Your task to perform on an android device: turn notification dots on Image 0: 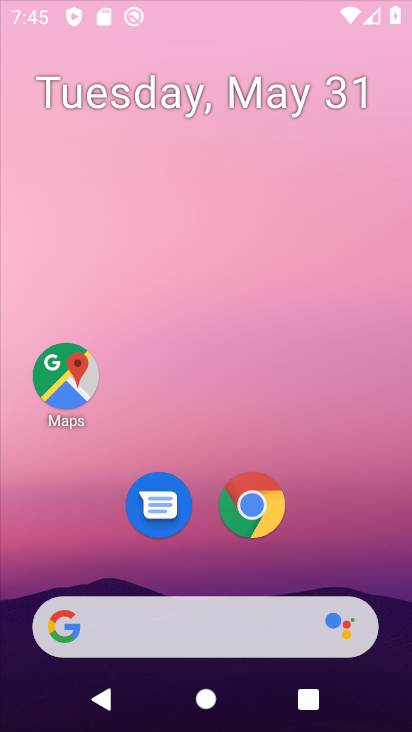
Step 0: drag from (358, 521) to (263, 178)
Your task to perform on an android device: turn notification dots on Image 1: 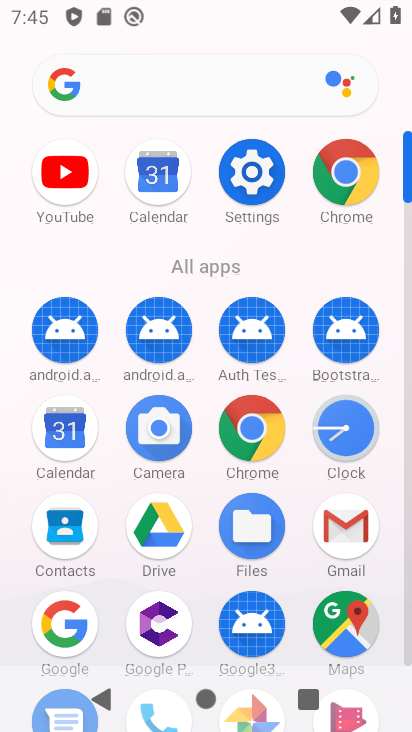
Step 1: click (253, 182)
Your task to perform on an android device: turn notification dots on Image 2: 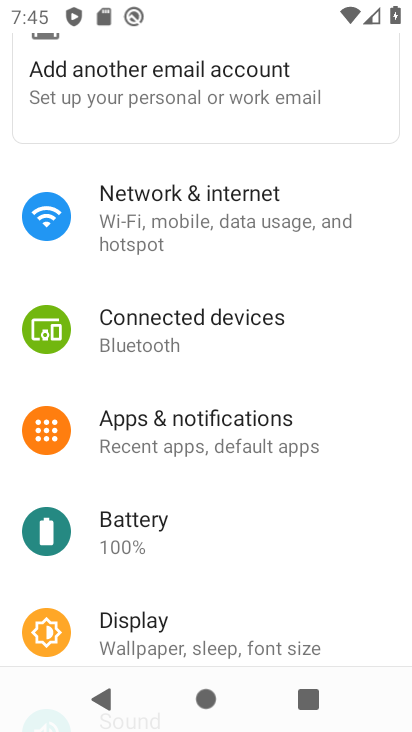
Step 2: click (281, 435)
Your task to perform on an android device: turn notification dots on Image 3: 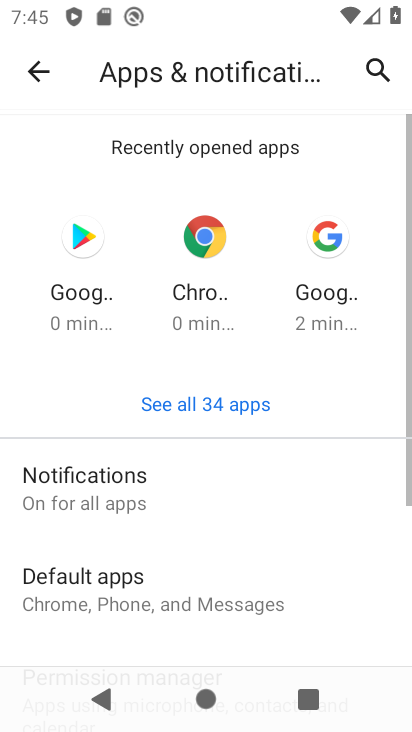
Step 3: click (87, 467)
Your task to perform on an android device: turn notification dots on Image 4: 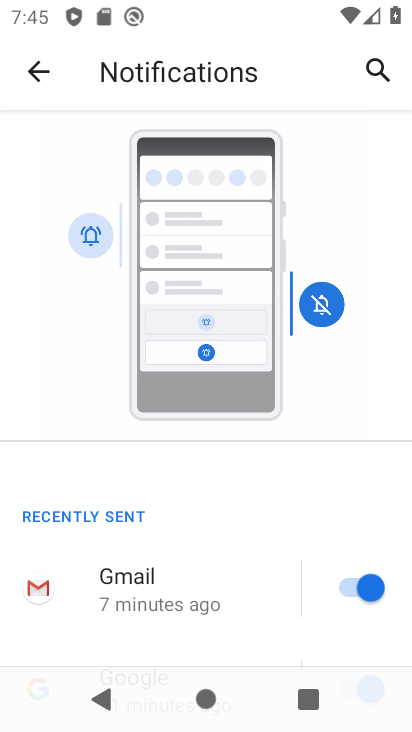
Step 4: drag from (254, 524) to (264, 262)
Your task to perform on an android device: turn notification dots on Image 5: 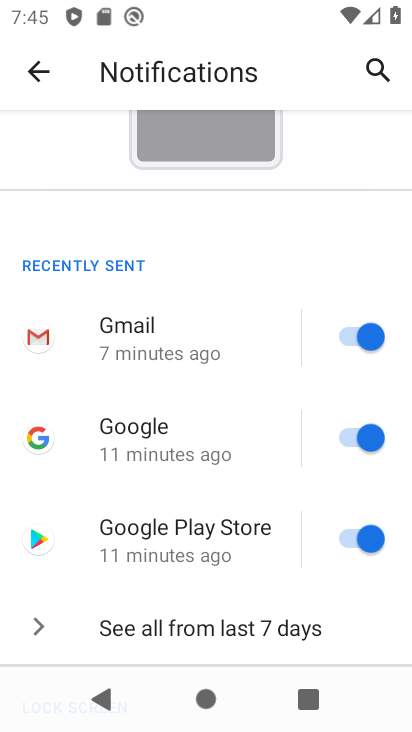
Step 5: drag from (194, 438) to (227, 315)
Your task to perform on an android device: turn notification dots on Image 6: 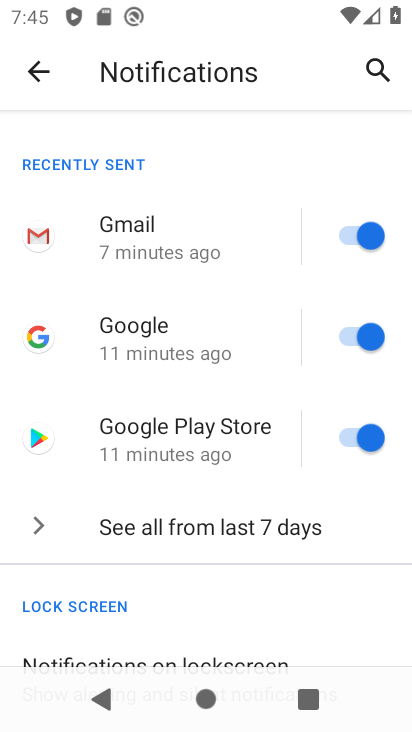
Step 6: drag from (226, 425) to (225, 177)
Your task to perform on an android device: turn notification dots on Image 7: 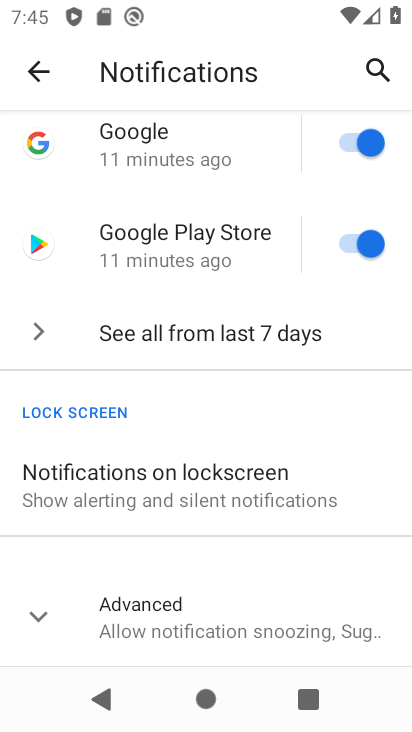
Step 7: click (179, 618)
Your task to perform on an android device: turn notification dots on Image 8: 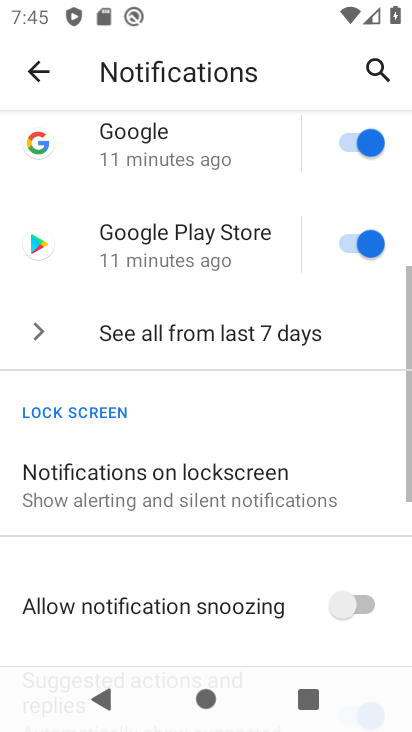
Step 8: drag from (273, 571) to (238, 259)
Your task to perform on an android device: turn notification dots on Image 9: 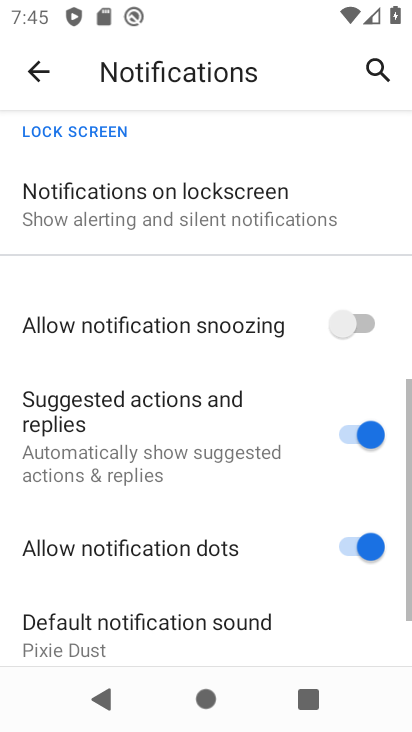
Step 9: click (240, 249)
Your task to perform on an android device: turn notification dots on Image 10: 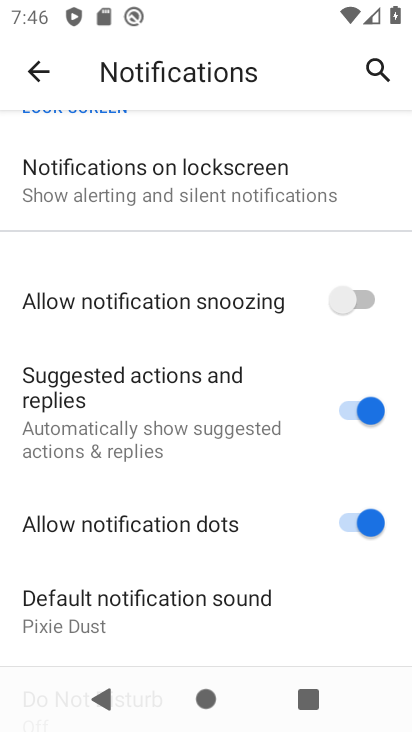
Step 10: task complete